Your task to perform on an android device: star an email in the gmail app Image 0: 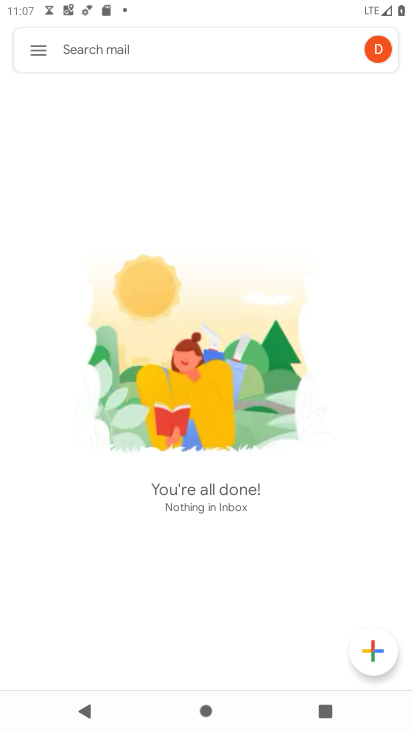
Step 0: click (42, 51)
Your task to perform on an android device: star an email in the gmail app Image 1: 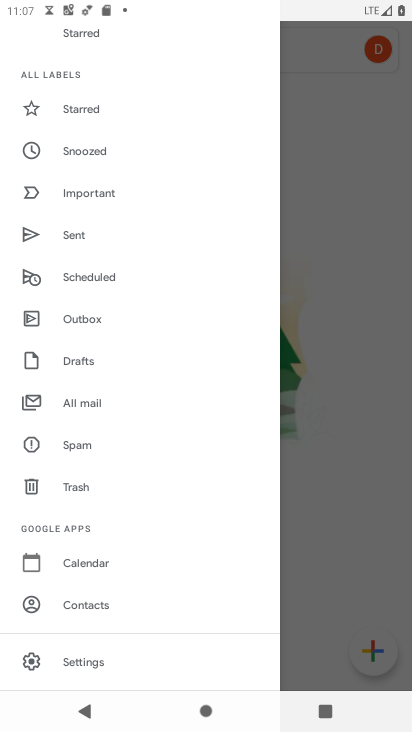
Step 1: drag from (146, 179) to (131, 686)
Your task to perform on an android device: star an email in the gmail app Image 2: 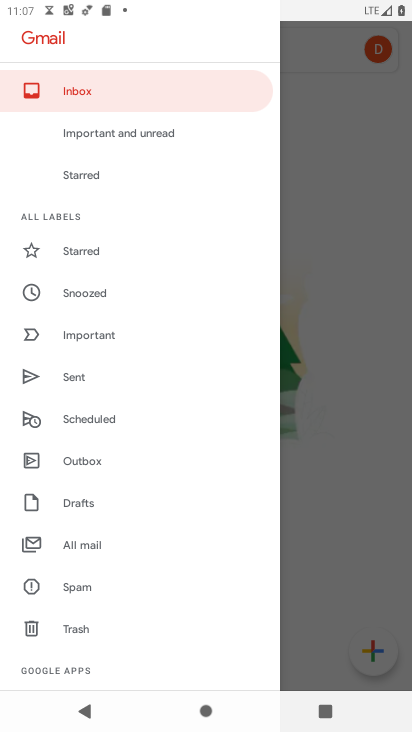
Step 2: click (122, 94)
Your task to perform on an android device: star an email in the gmail app Image 3: 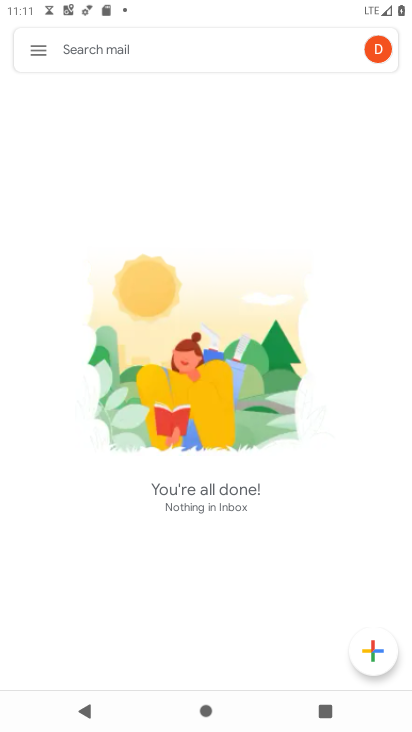
Step 3: task complete